Your task to perform on an android device: Clear the shopping cart on amazon.com. Image 0: 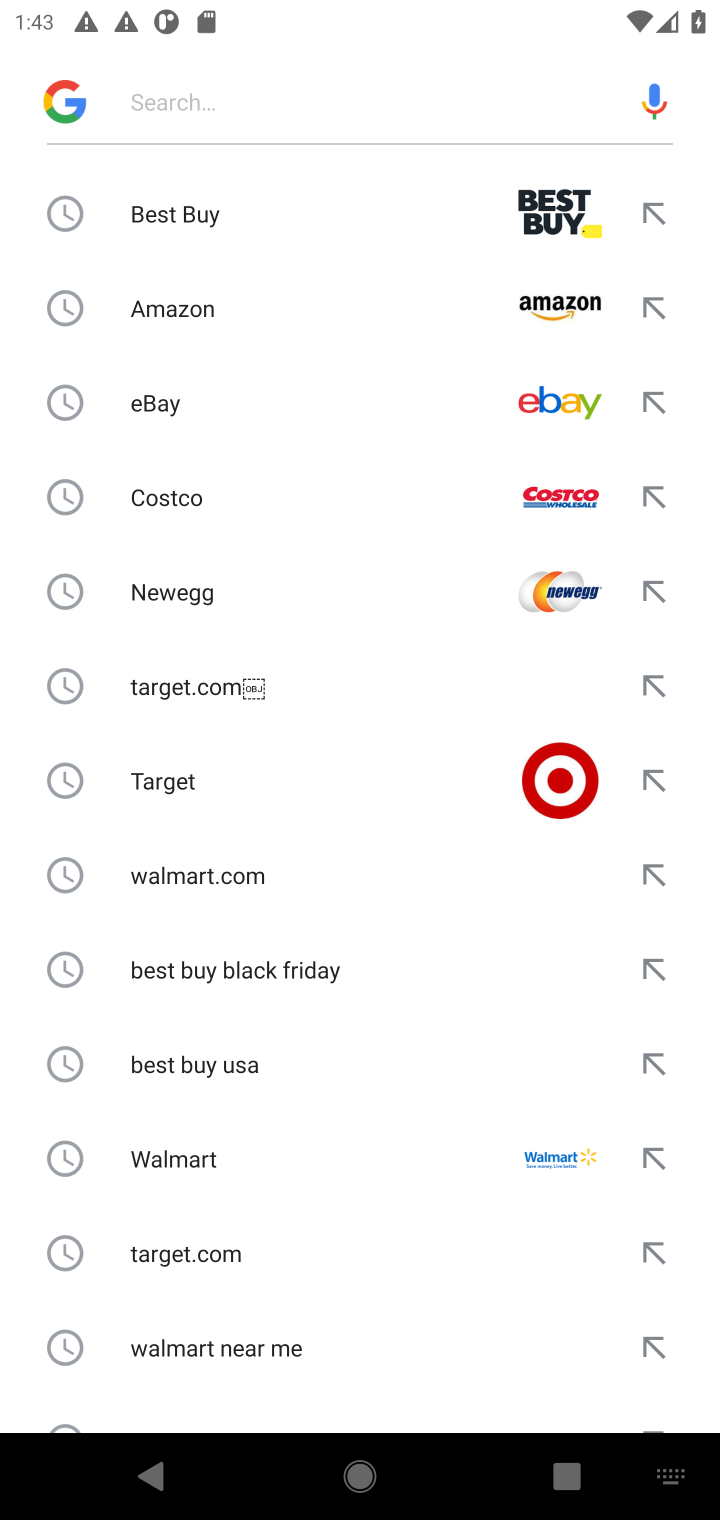
Step 0: click (299, 319)
Your task to perform on an android device: Clear the shopping cart on amazon.com. Image 1: 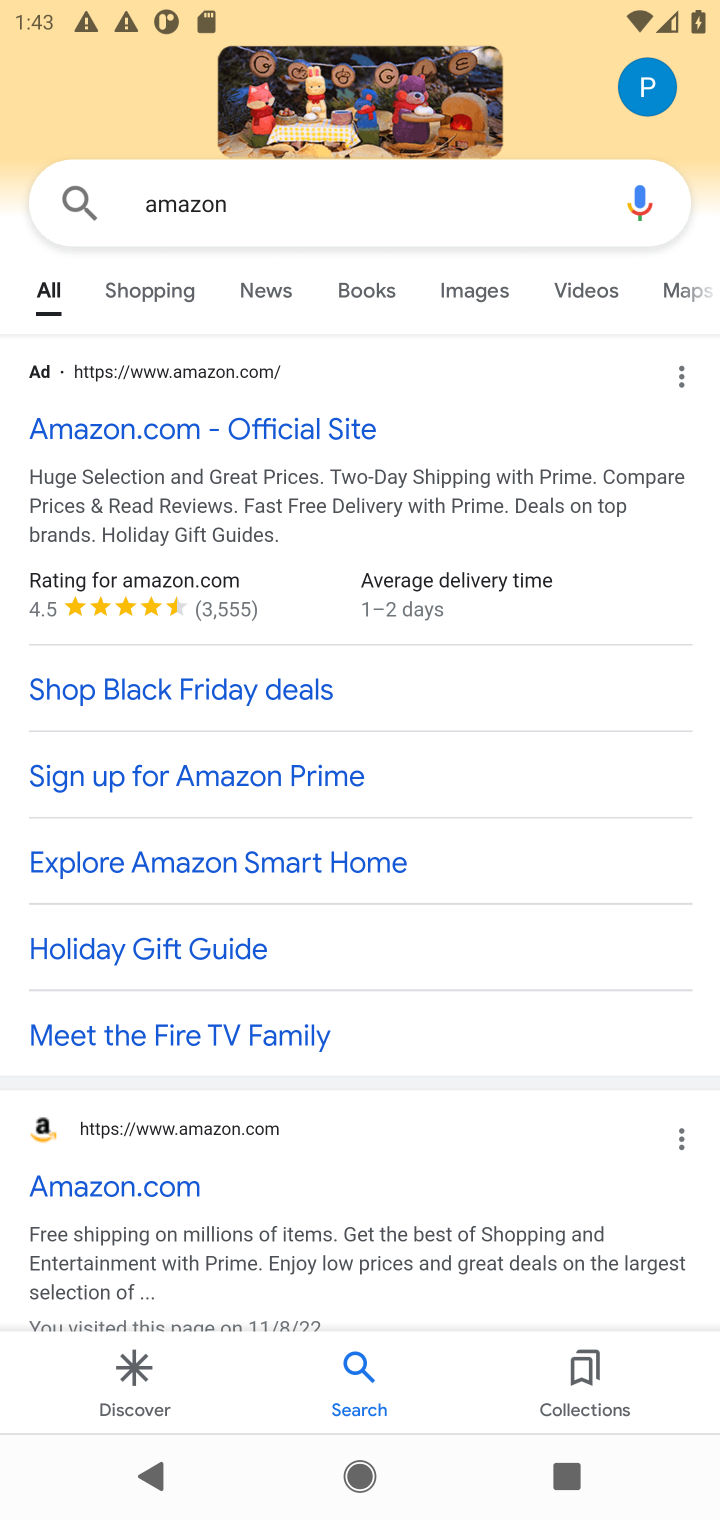
Step 1: click (282, 427)
Your task to perform on an android device: Clear the shopping cart on amazon.com. Image 2: 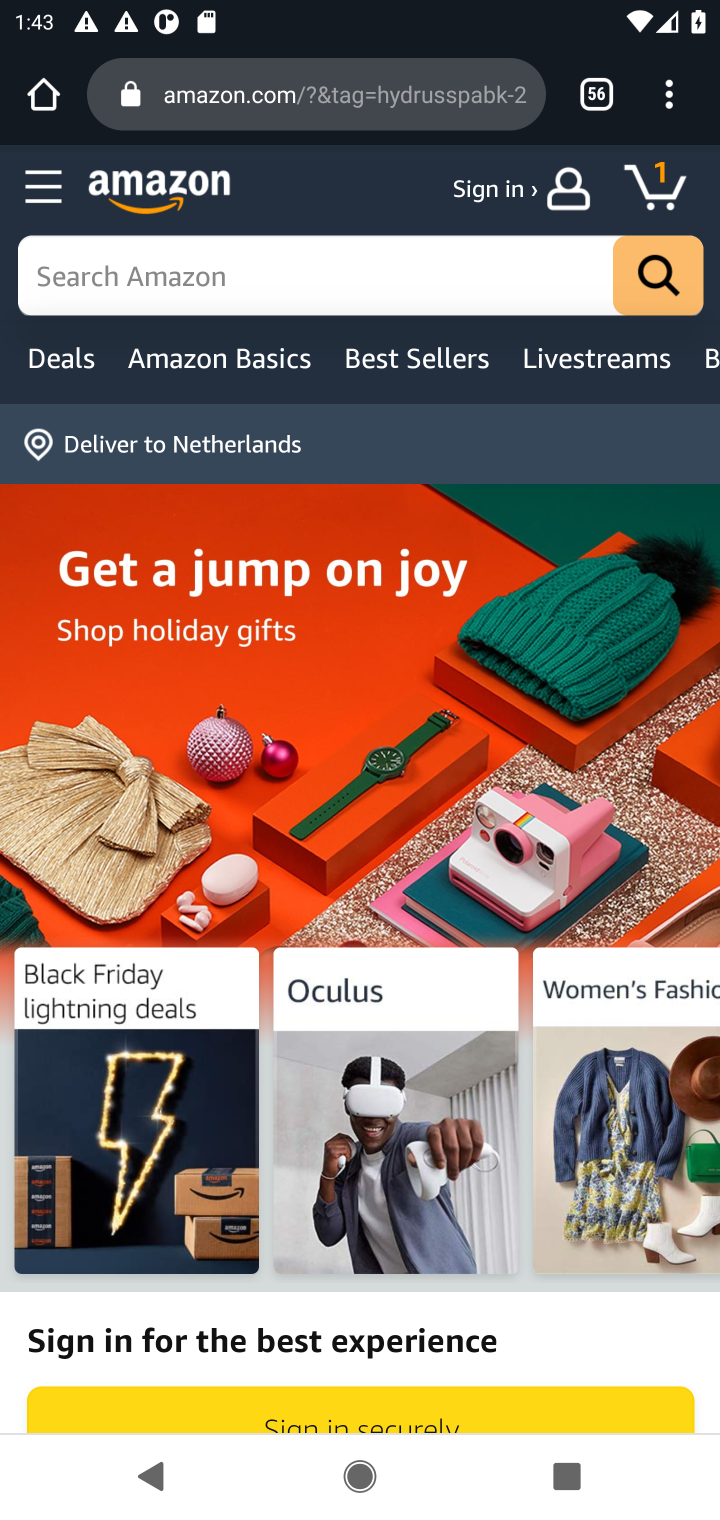
Step 2: click (216, 264)
Your task to perform on an android device: Clear the shopping cart on amazon.com. Image 3: 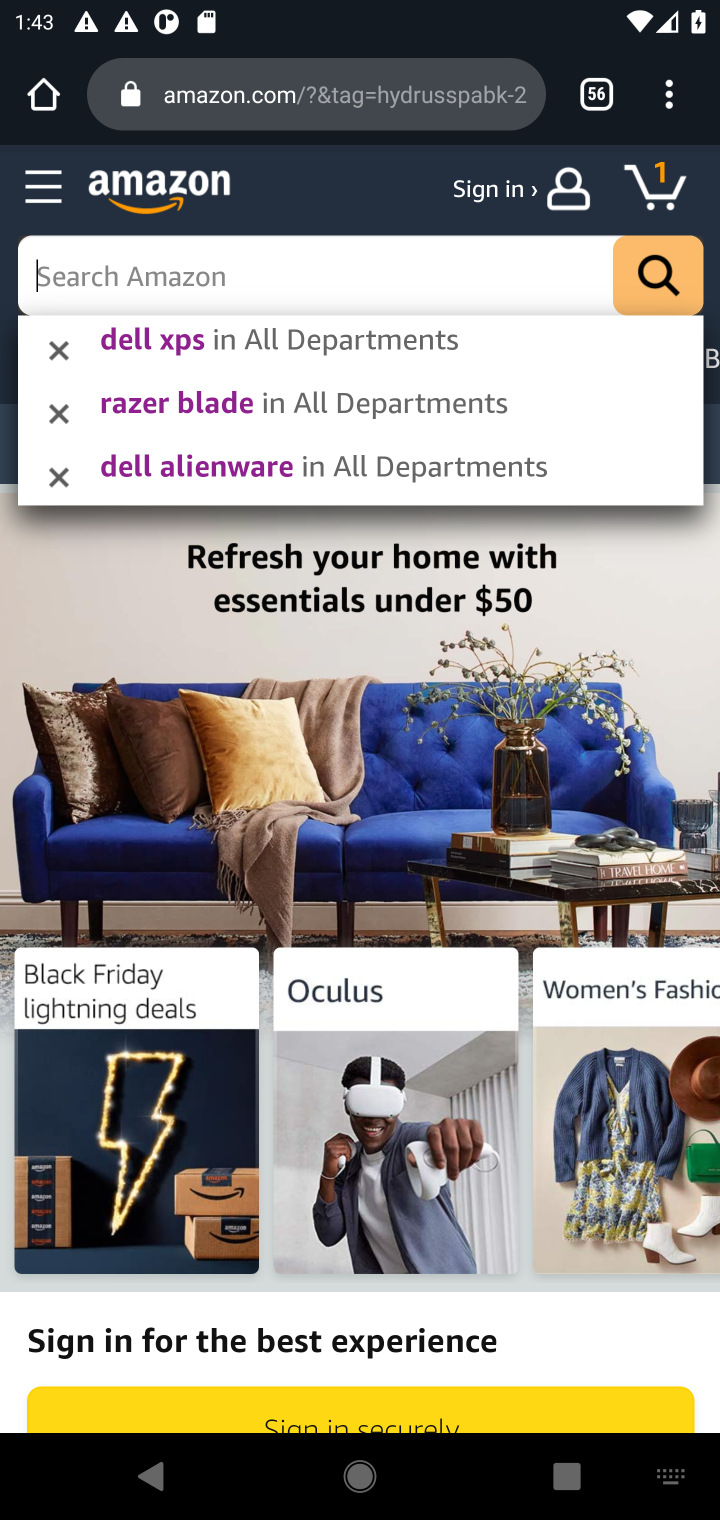
Step 3: click (625, 181)
Your task to perform on an android device: Clear the shopping cart on amazon.com. Image 4: 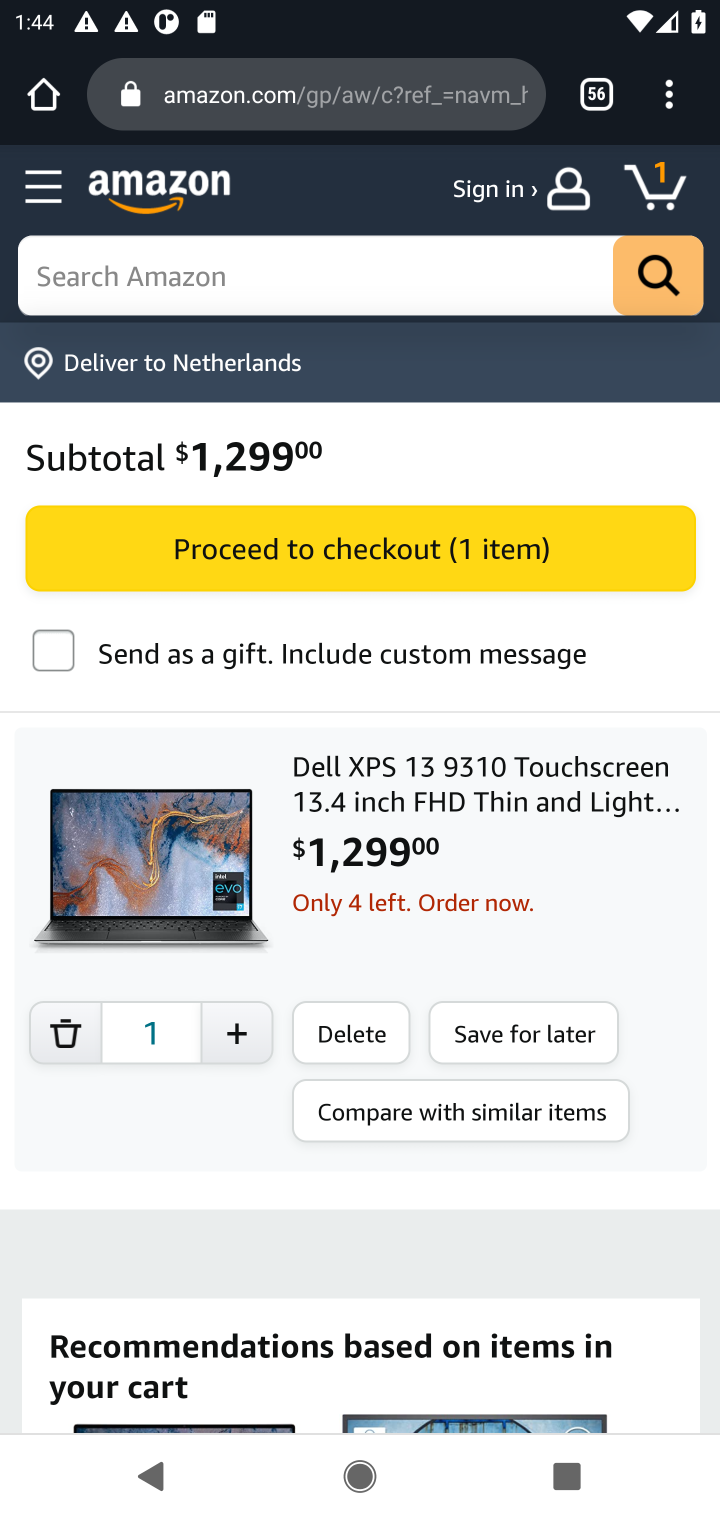
Step 4: click (389, 1019)
Your task to perform on an android device: Clear the shopping cart on amazon.com. Image 5: 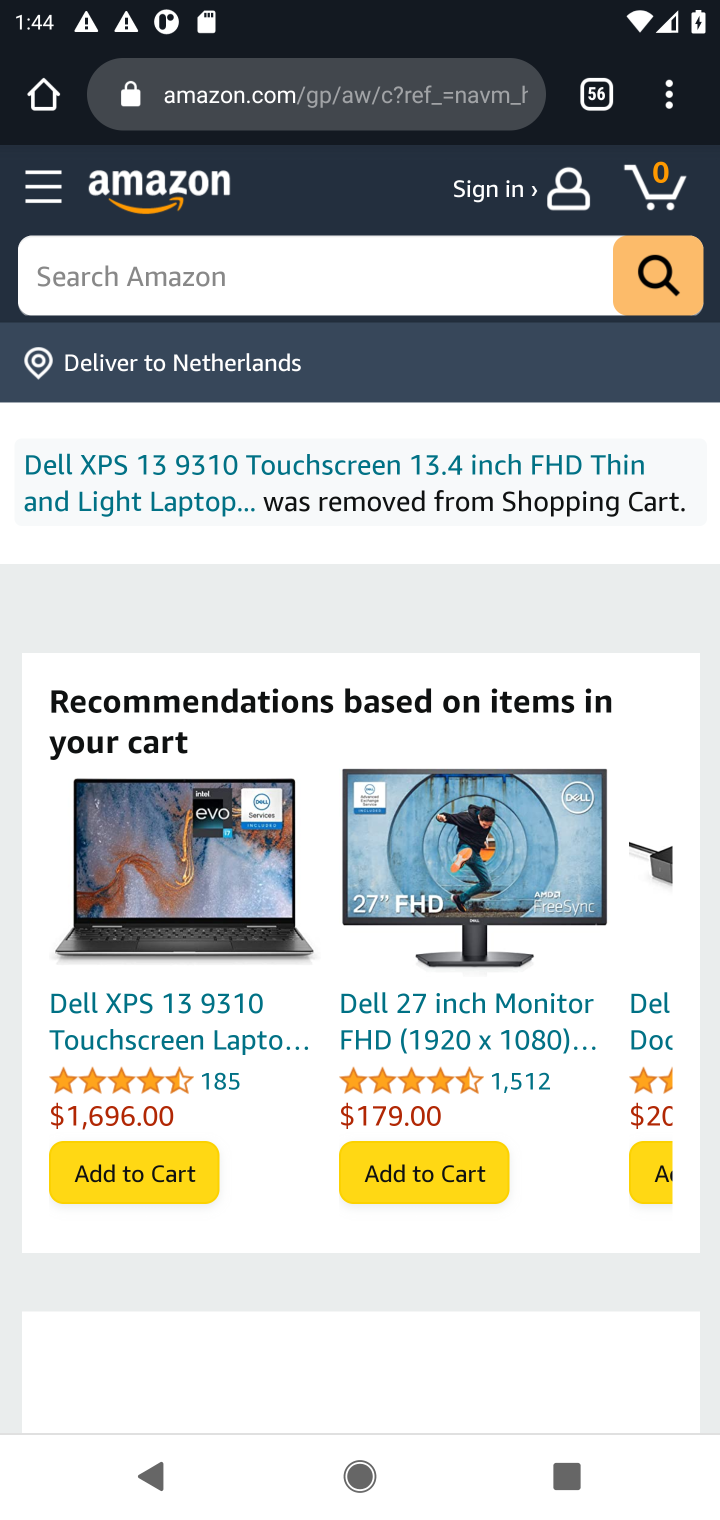
Step 5: task complete